Your task to perform on an android device: open wifi settings Image 0: 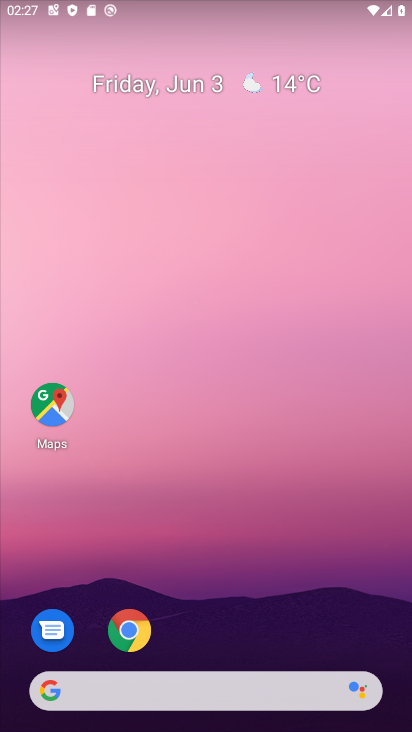
Step 0: drag from (385, 617) to (356, 229)
Your task to perform on an android device: open wifi settings Image 1: 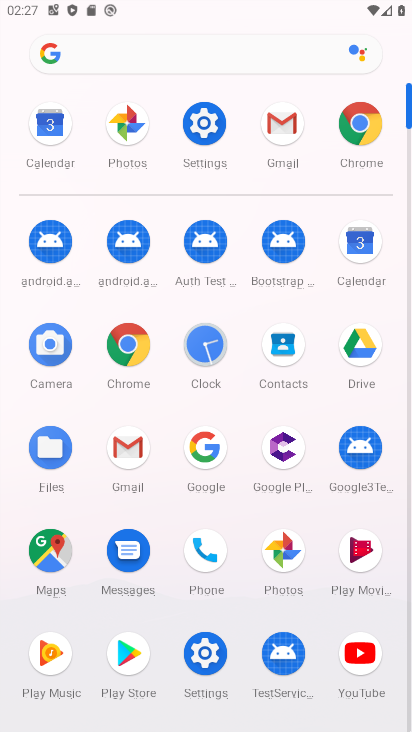
Step 1: click (208, 135)
Your task to perform on an android device: open wifi settings Image 2: 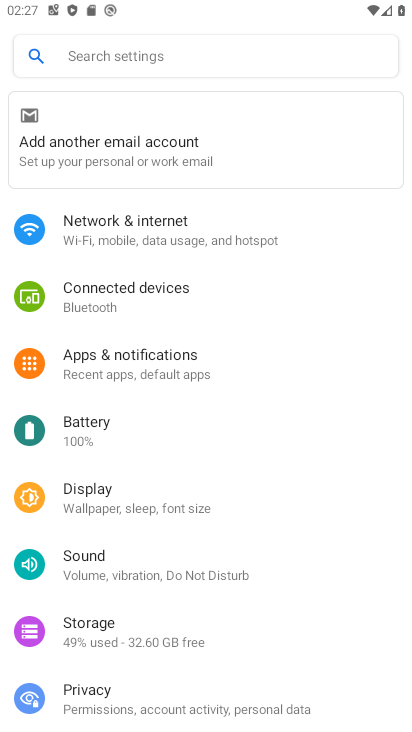
Step 2: click (130, 230)
Your task to perform on an android device: open wifi settings Image 3: 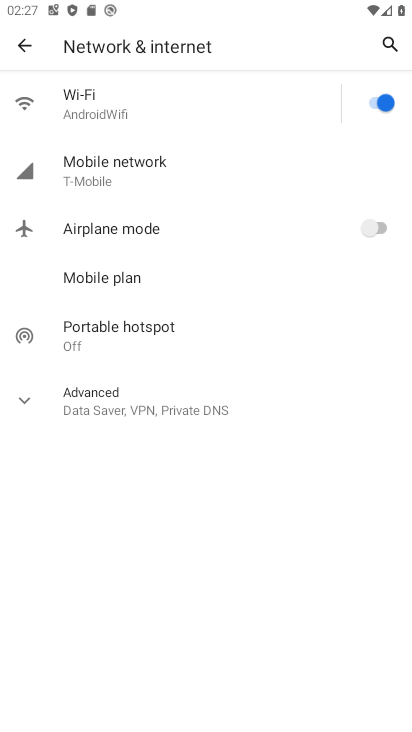
Step 3: click (118, 106)
Your task to perform on an android device: open wifi settings Image 4: 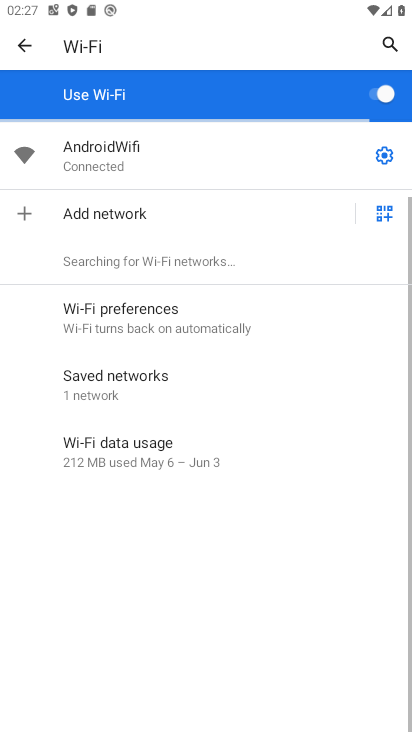
Step 4: click (379, 151)
Your task to perform on an android device: open wifi settings Image 5: 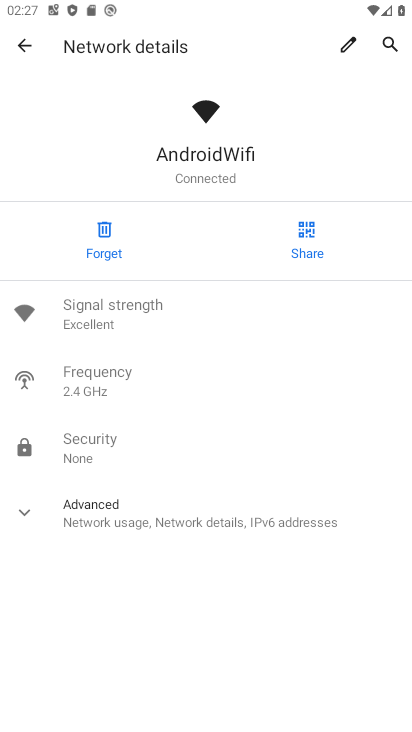
Step 5: task complete